Your task to perform on an android device: snooze an email in the gmail app Image 0: 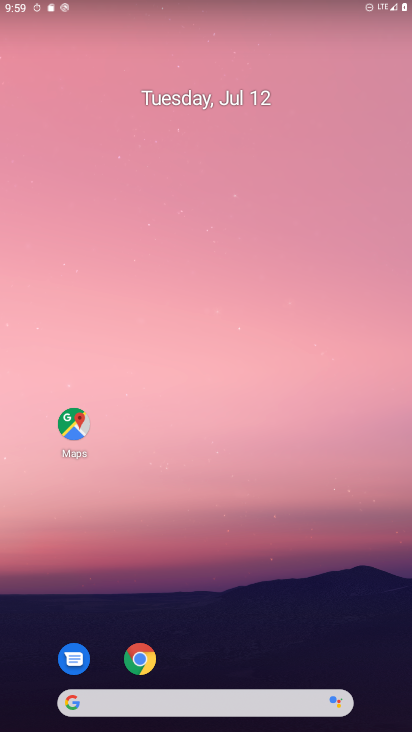
Step 0: drag from (368, 678) to (272, 19)
Your task to perform on an android device: snooze an email in the gmail app Image 1: 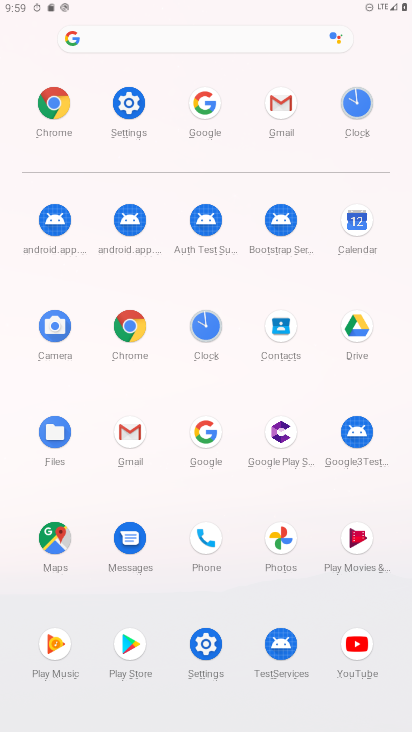
Step 1: click (136, 440)
Your task to perform on an android device: snooze an email in the gmail app Image 2: 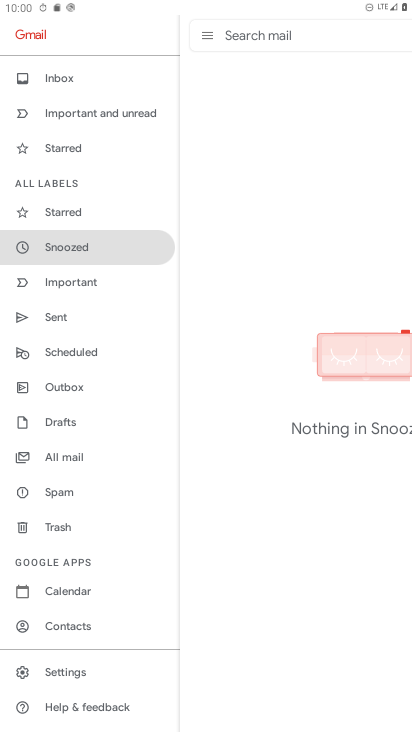
Step 2: task complete